Your task to perform on an android device: search for starred emails in the gmail app Image 0: 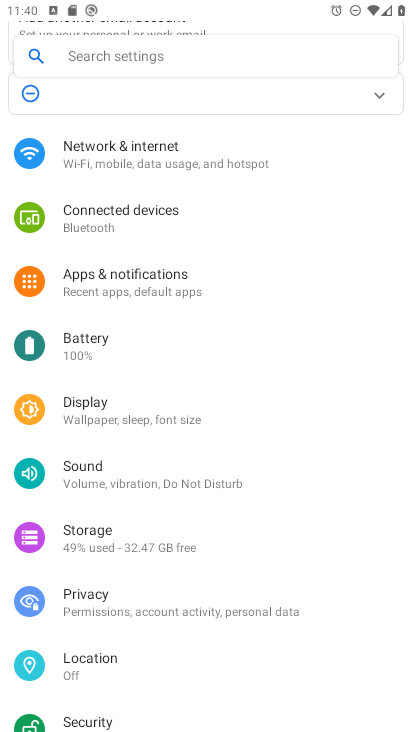
Step 0: drag from (162, 596) to (223, 449)
Your task to perform on an android device: search for starred emails in the gmail app Image 1: 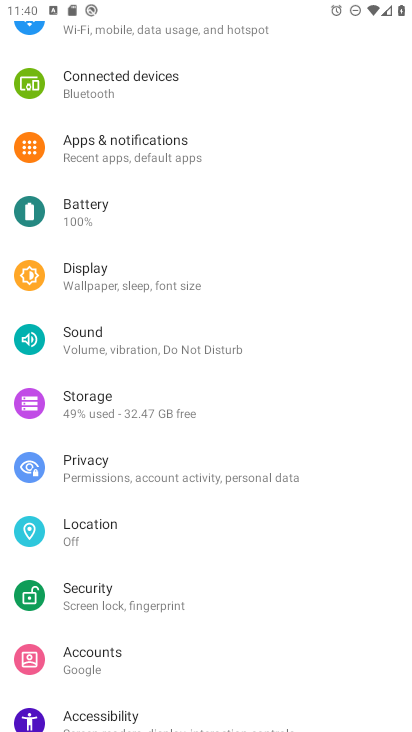
Step 1: press home button
Your task to perform on an android device: search for starred emails in the gmail app Image 2: 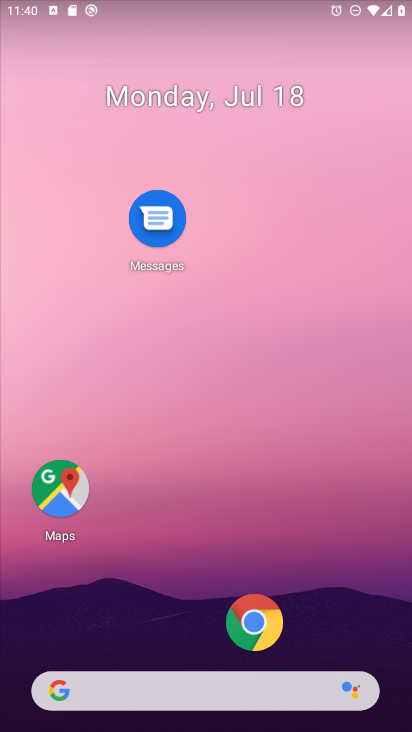
Step 2: drag from (208, 701) to (363, 128)
Your task to perform on an android device: search for starred emails in the gmail app Image 3: 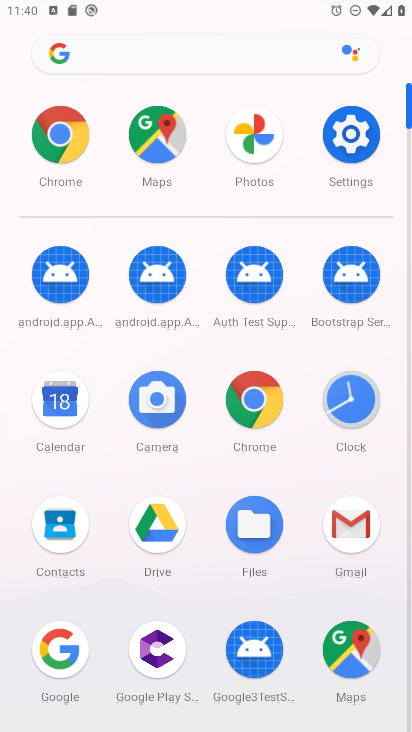
Step 3: click (357, 539)
Your task to perform on an android device: search for starred emails in the gmail app Image 4: 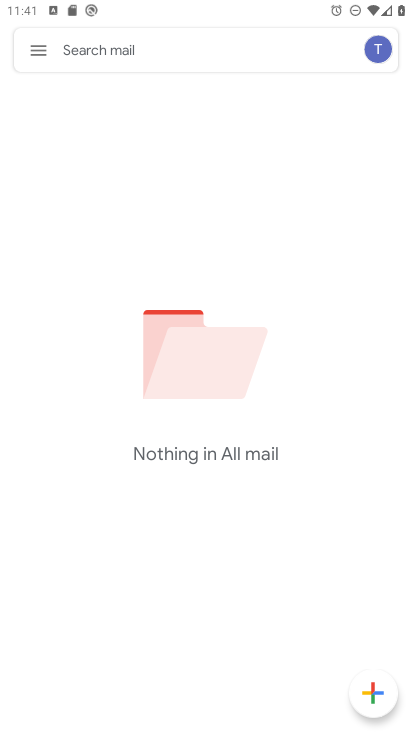
Step 4: click (39, 56)
Your task to perform on an android device: search for starred emails in the gmail app Image 5: 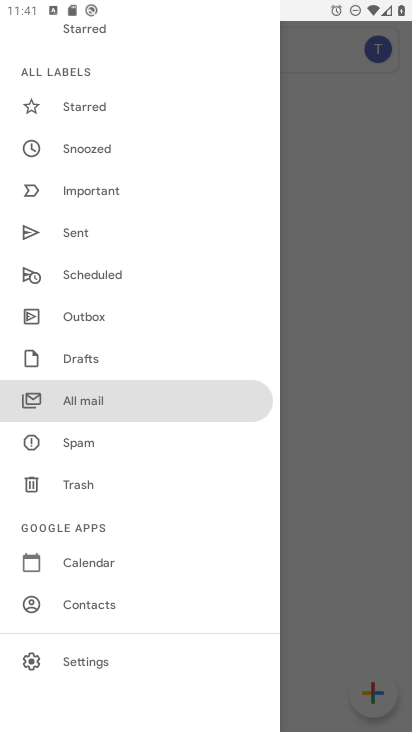
Step 5: click (94, 114)
Your task to perform on an android device: search for starred emails in the gmail app Image 6: 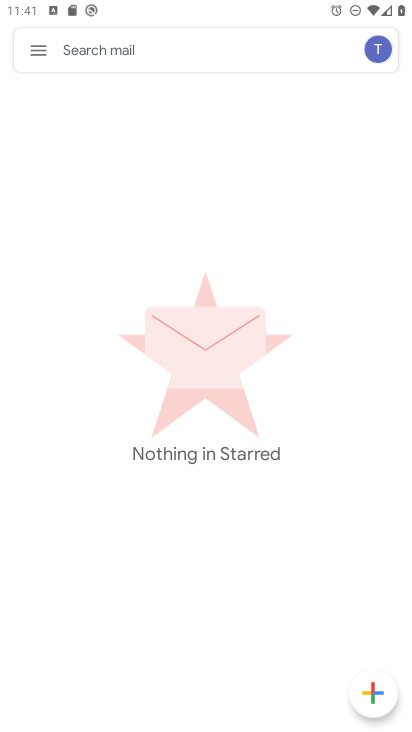
Step 6: task complete